Your task to perform on an android device: add a label to a message in the gmail app Image 0: 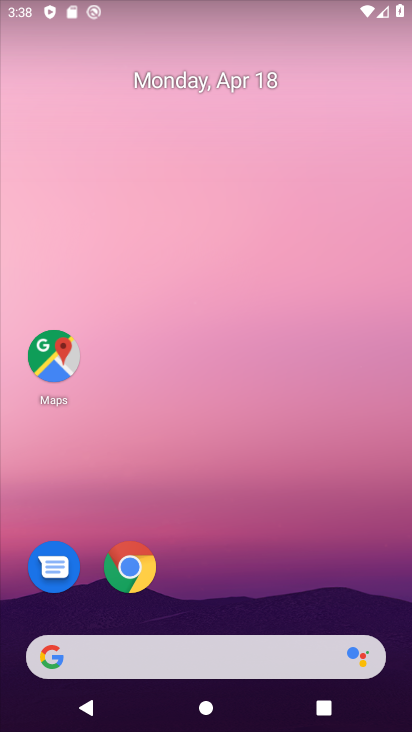
Step 0: drag from (296, 509) to (284, 164)
Your task to perform on an android device: add a label to a message in the gmail app Image 1: 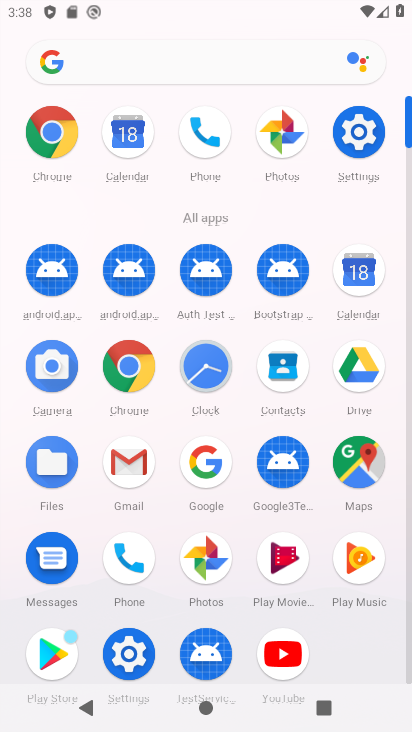
Step 1: click (137, 479)
Your task to perform on an android device: add a label to a message in the gmail app Image 2: 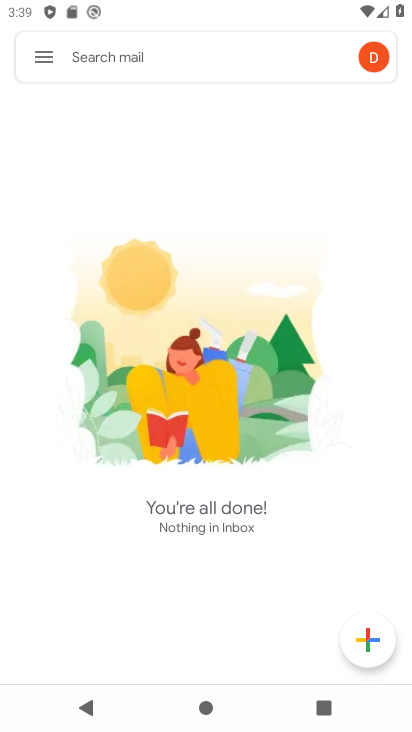
Step 2: click (45, 52)
Your task to perform on an android device: add a label to a message in the gmail app Image 3: 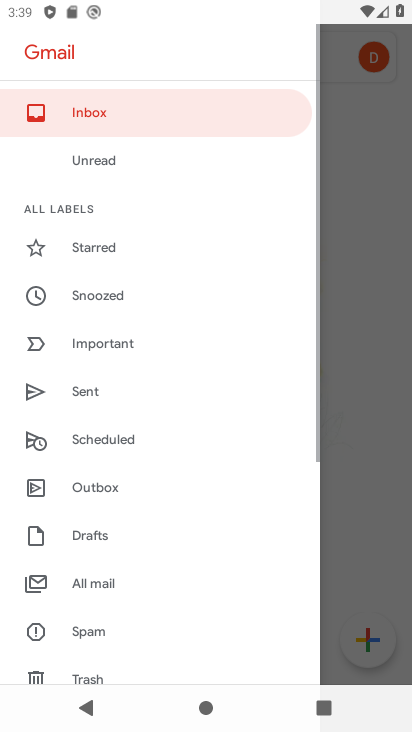
Step 3: click (80, 109)
Your task to perform on an android device: add a label to a message in the gmail app Image 4: 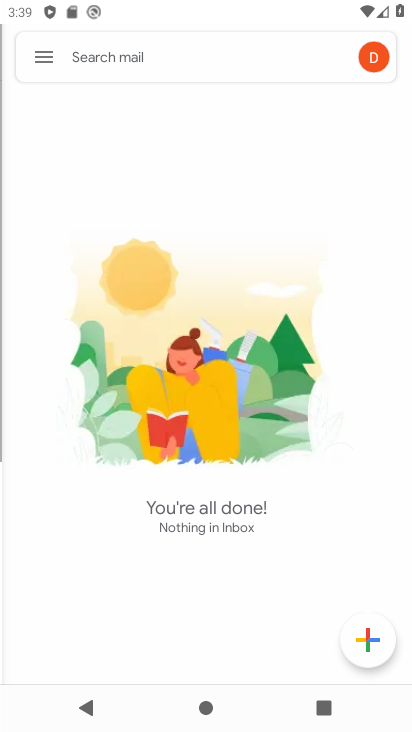
Step 4: task complete